Your task to perform on an android device: open a bookmark in the chrome app Image 0: 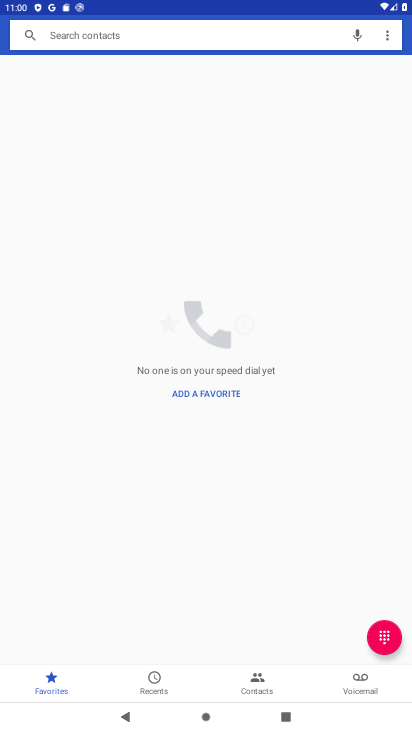
Step 0: press home button
Your task to perform on an android device: open a bookmark in the chrome app Image 1: 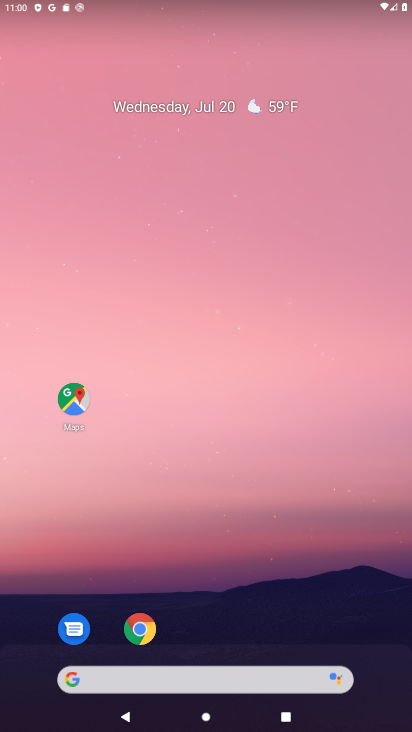
Step 1: click (140, 633)
Your task to perform on an android device: open a bookmark in the chrome app Image 2: 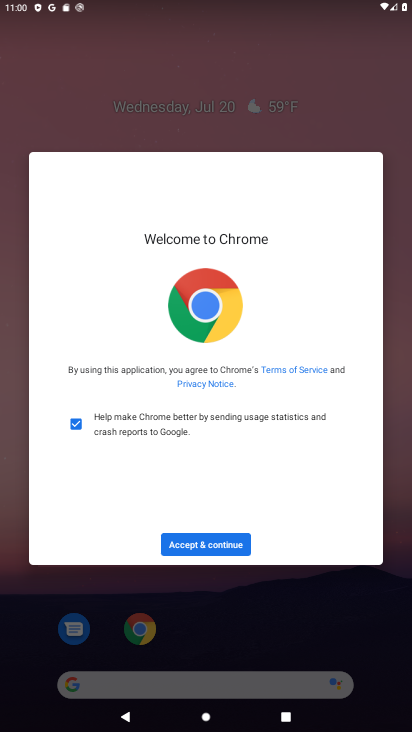
Step 2: click (189, 543)
Your task to perform on an android device: open a bookmark in the chrome app Image 3: 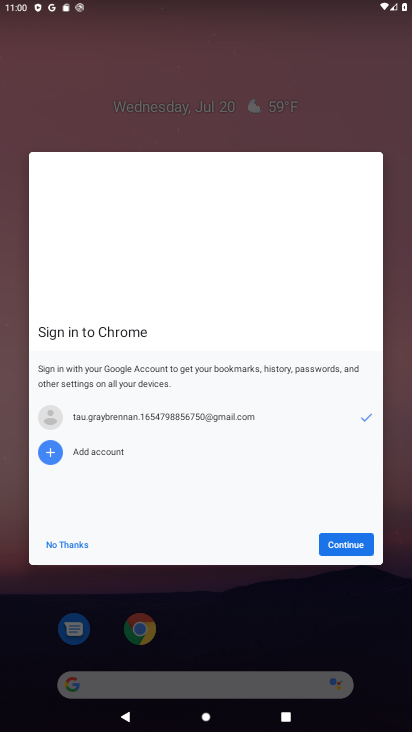
Step 3: click (355, 543)
Your task to perform on an android device: open a bookmark in the chrome app Image 4: 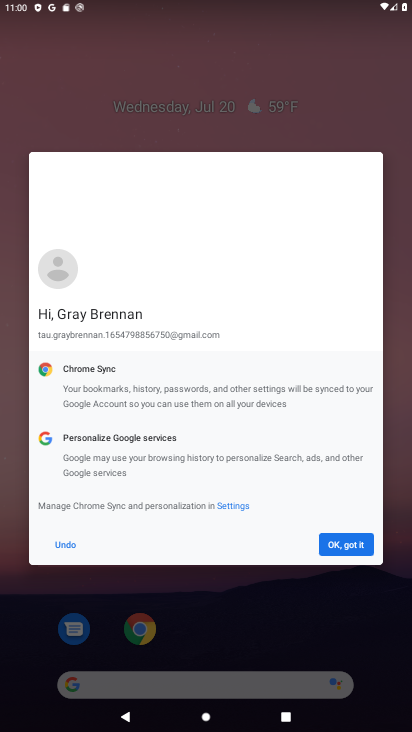
Step 4: click (355, 543)
Your task to perform on an android device: open a bookmark in the chrome app Image 5: 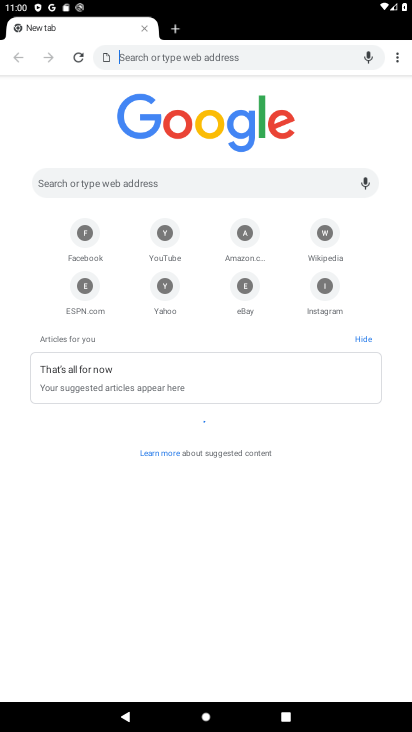
Step 5: click (397, 63)
Your task to perform on an android device: open a bookmark in the chrome app Image 6: 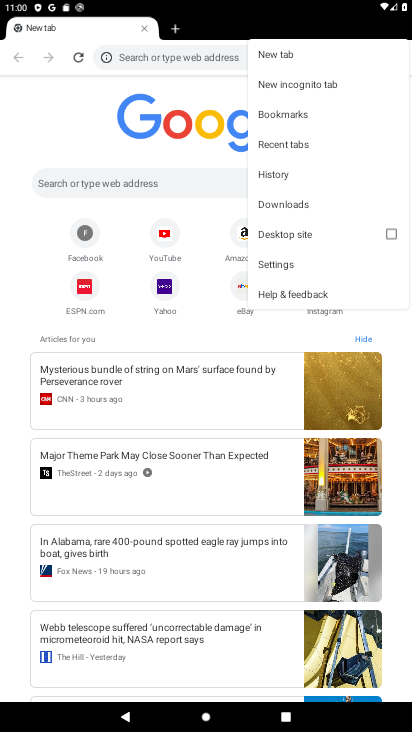
Step 6: click (284, 108)
Your task to perform on an android device: open a bookmark in the chrome app Image 7: 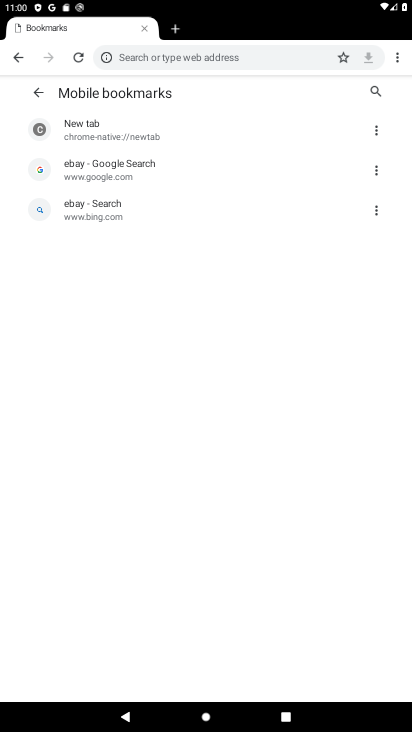
Step 7: task complete